Your task to perform on an android device: Go to calendar. Show me events next week Image 0: 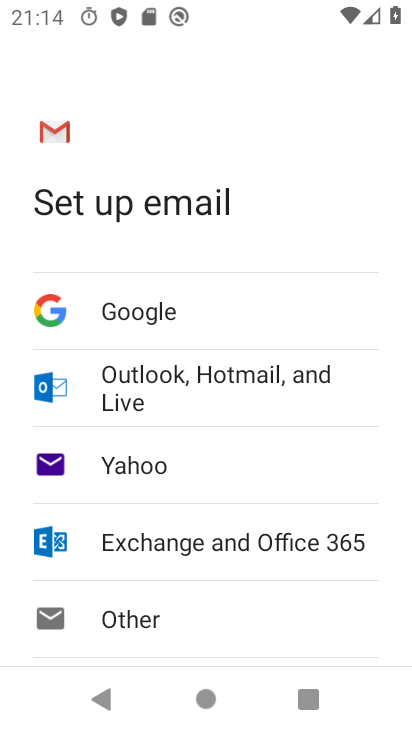
Step 0: press home button
Your task to perform on an android device: Go to calendar. Show me events next week Image 1: 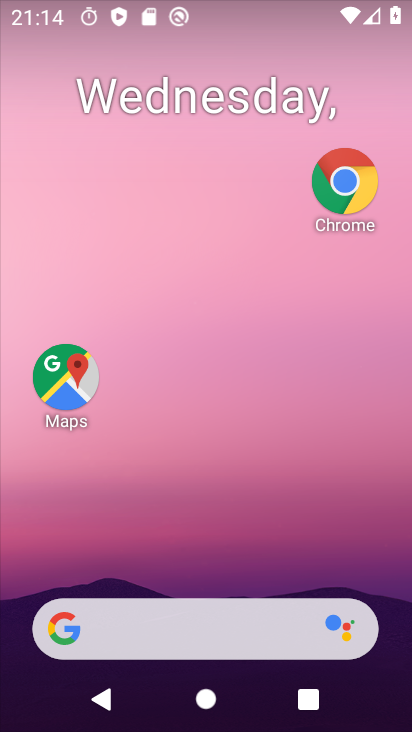
Step 1: drag from (281, 653) to (328, 252)
Your task to perform on an android device: Go to calendar. Show me events next week Image 2: 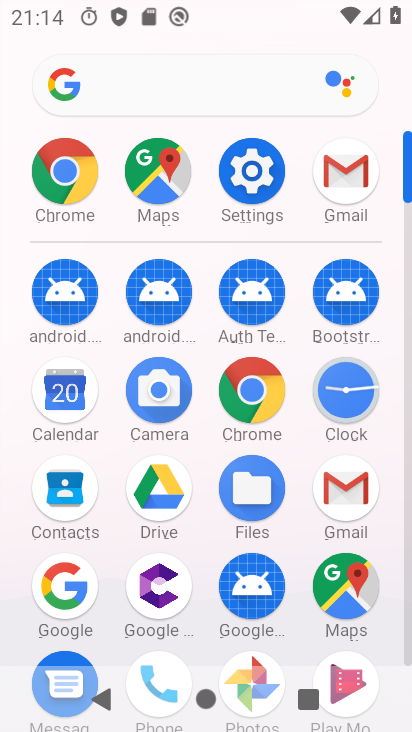
Step 2: click (69, 396)
Your task to perform on an android device: Go to calendar. Show me events next week Image 3: 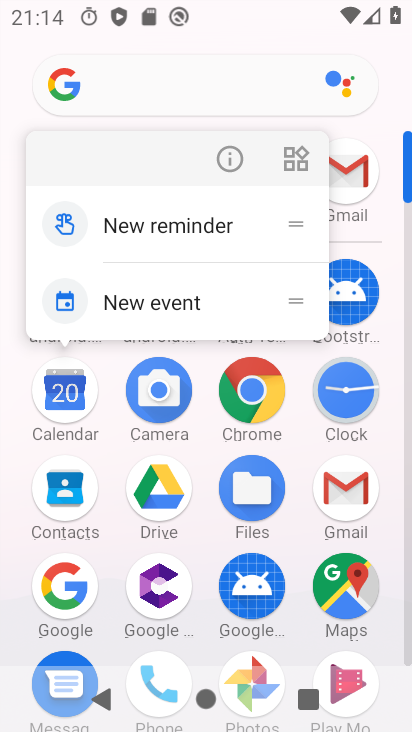
Step 3: click (80, 392)
Your task to perform on an android device: Go to calendar. Show me events next week Image 4: 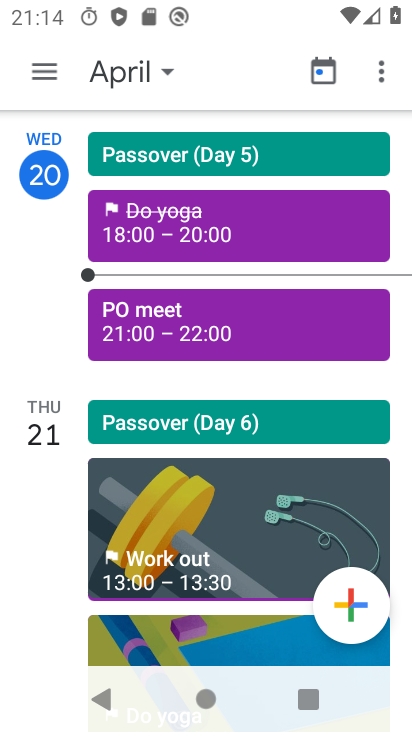
Step 4: click (57, 70)
Your task to perform on an android device: Go to calendar. Show me events next week Image 5: 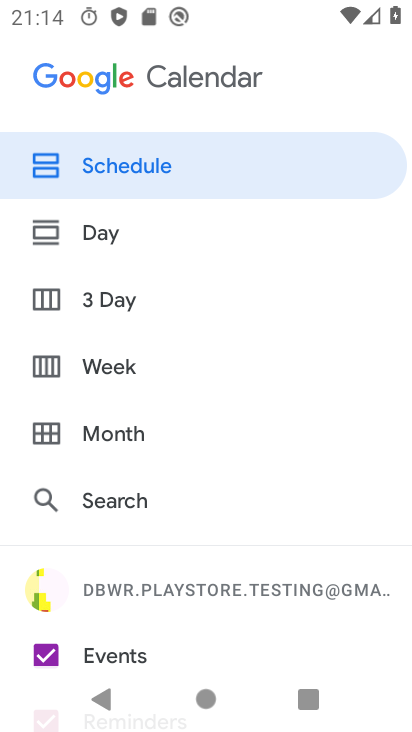
Step 5: click (99, 362)
Your task to perform on an android device: Go to calendar. Show me events next week Image 6: 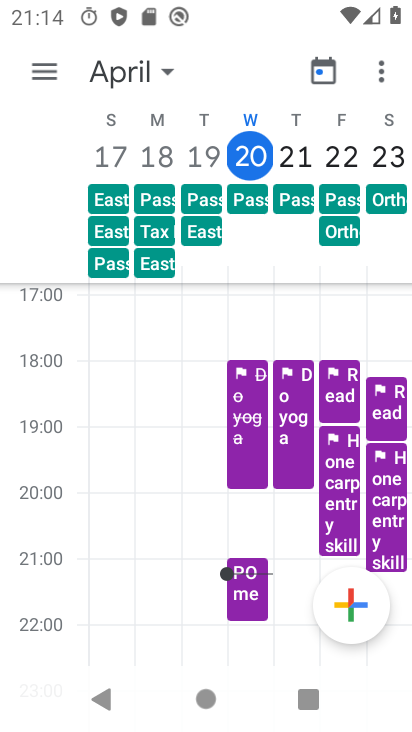
Step 6: task complete